Your task to perform on an android device: toggle javascript in the chrome app Image 0: 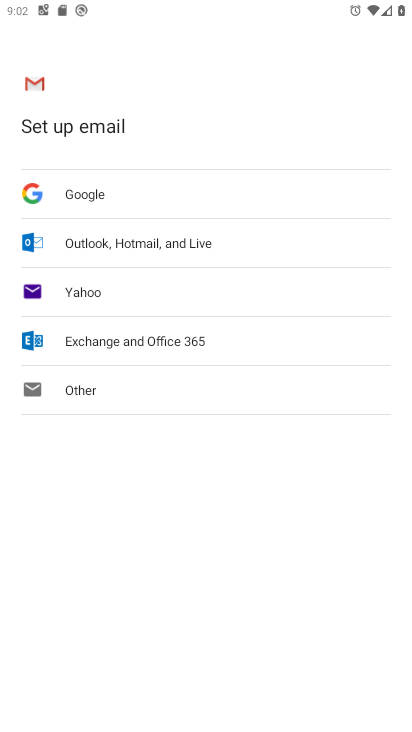
Step 0: press home button
Your task to perform on an android device: toggle javascript in the chrome app Image 1: 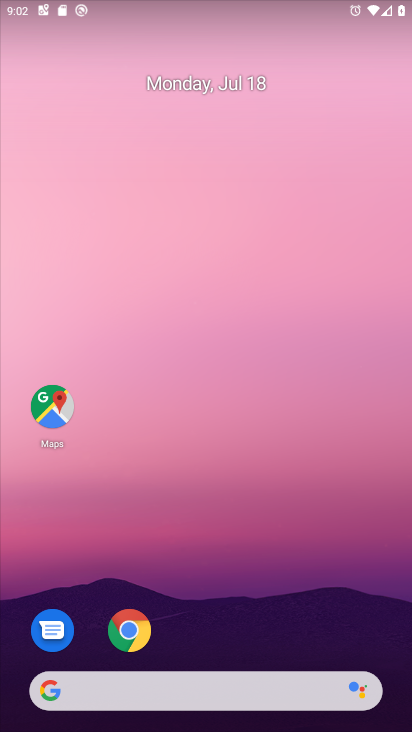
Step 1: click (115, 617)
Your task to perform on an android device: toggle javascript in the chrome app Image 2: 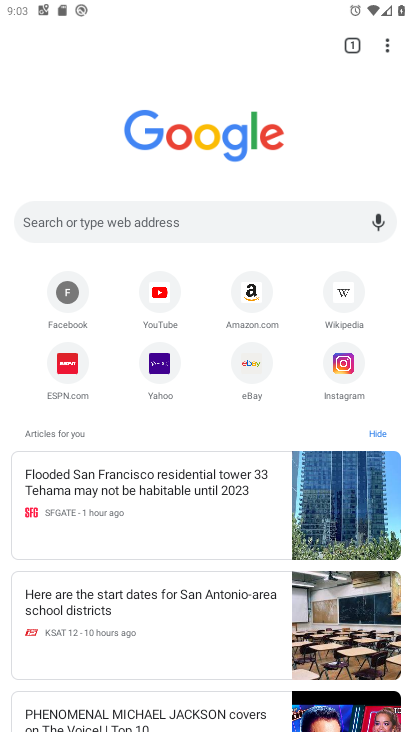
Step 2: click (386, 50)
Your task to perform on an android device: toggle javascript in the chrome app Image 3: 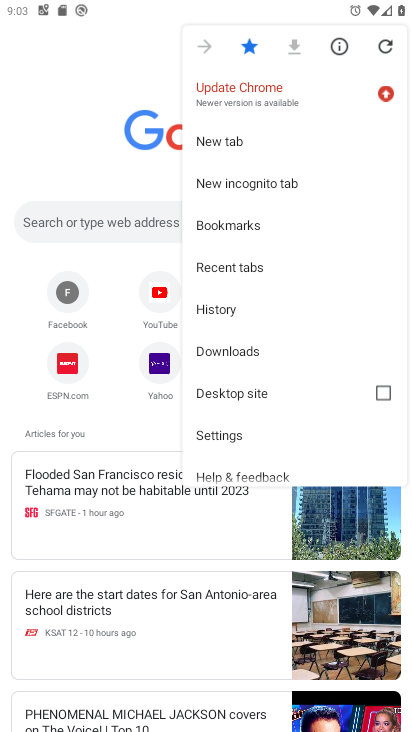
Step 3: click (252, 437)
Your task to perform on an android device: toggle javascript in the chrome app Image 4: 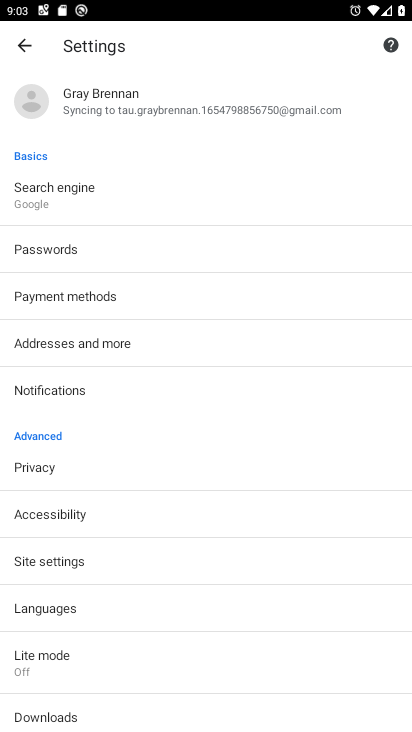
Step 4: click (93, 566)
Your task to perform on an android device: toggle javascript in the chrome app Image 5: 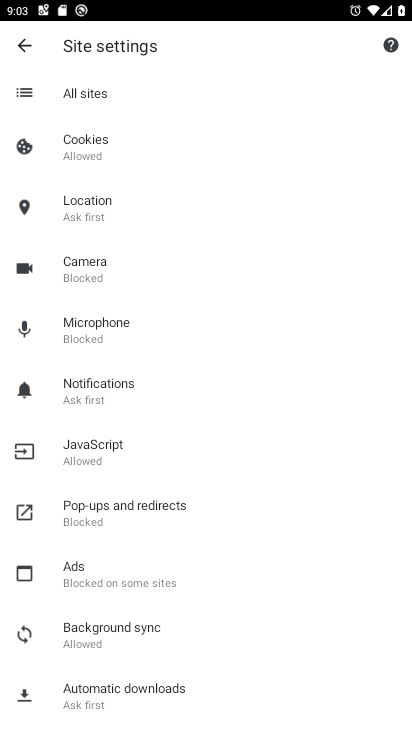
Step 5: click (142, 440)
Your task to perform on an android device: toggle javascript in the chrome app Image 6: 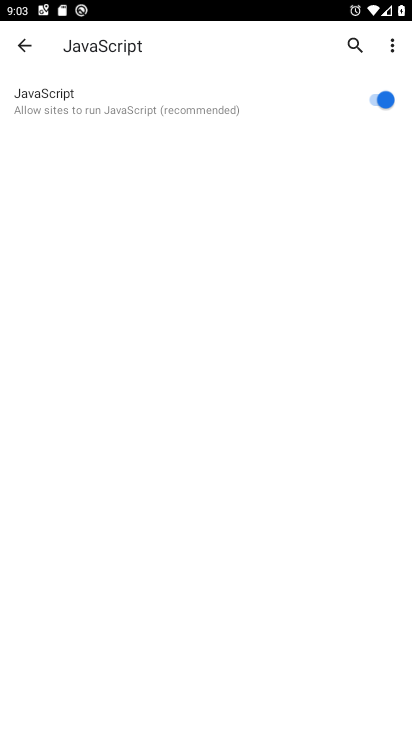
Step 6: click (376, 99)
Your task to perform on an android device: toggle javascript in the chrome app Image 7: 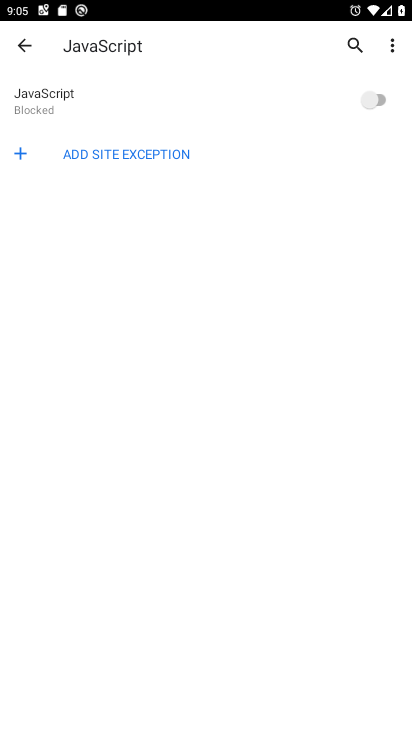
Step 7: click (382, 90)
Your task to perform on an android device: toggle javascript in the chrome app Image 8: 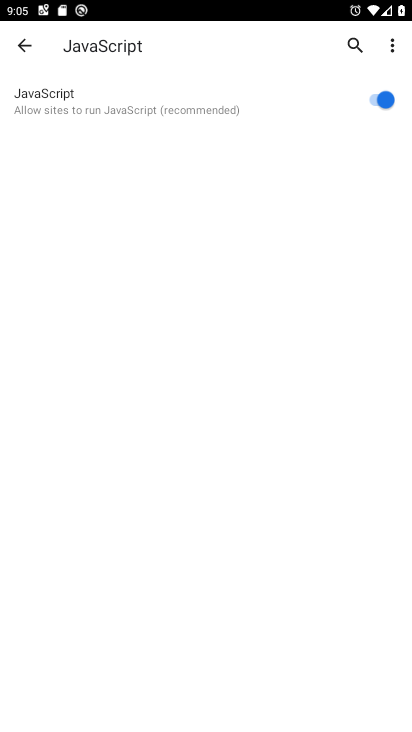
Step 8: task complete